Your task to perform on an android device: turn on showing notifications on the lock screen Image 0: 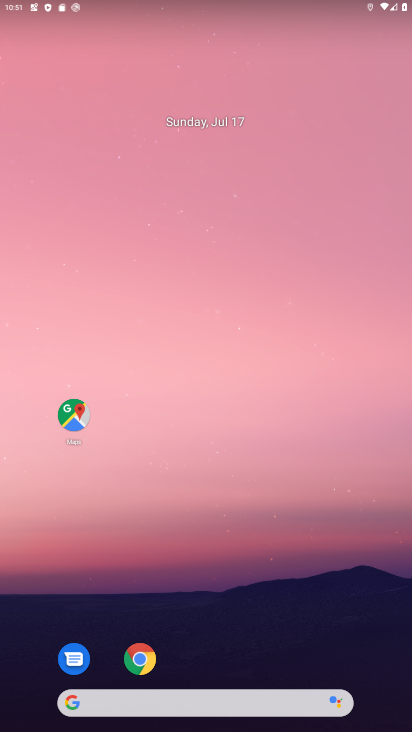
Step 0: drag from (266, 669) to (37, 51)
Your task to perform on an android device: turn on showing notifications on the lock screen Image 1: 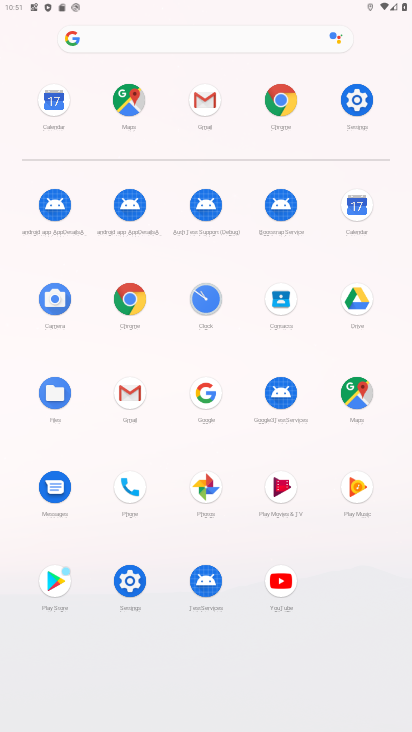
Step 1: click (350, 100)
Your task to perform on an android device: turn on showing notifications on the lock screen Image 2: 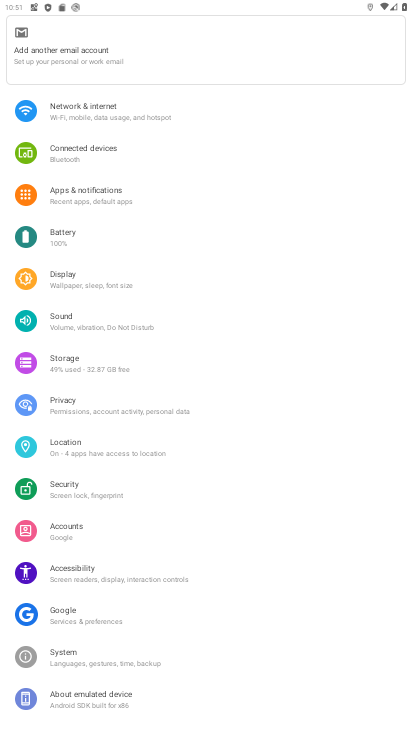
Step 2: click (96, 191)
Your task to perform on an android device: turn on showing notifications on the lock screen Image 3: 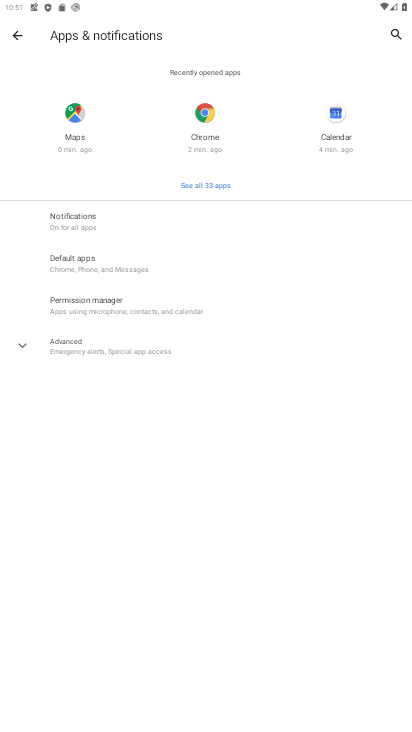
Step 3: click (86, 222)
Your task to perform on an android device: turn on showing notifications on the lock screen Image 4: 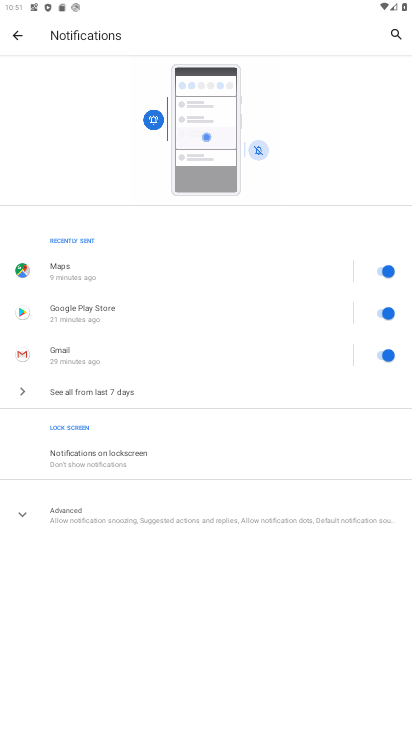
Step 4: click (151, 455)
Your task to perform on an android device: turn on showing notifications on the lock screen Image 5: 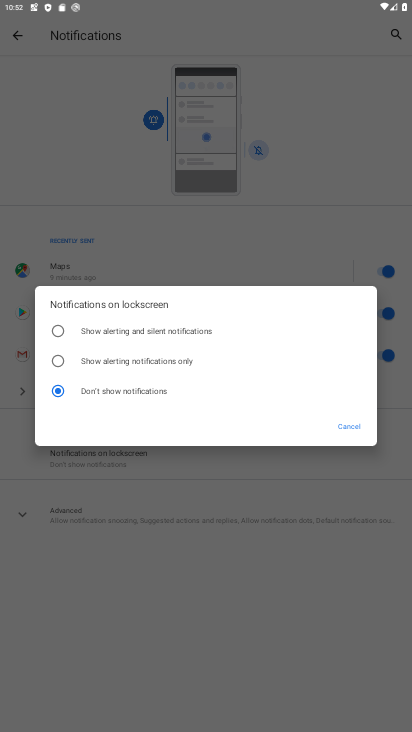
Step 5: click (143, 362)
Your task to perform on an android device: turn on showing notifications on the lock screen Image 6: 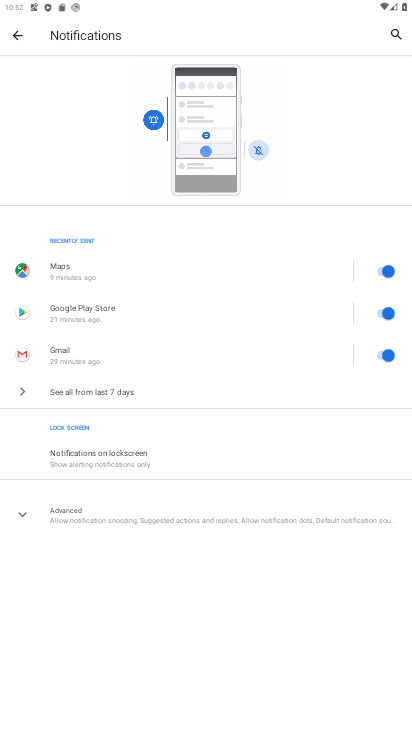
Step 6: task complete